Your task to perform on an android device: open app "Spotify: Music and Podcasts" (install if not already installed) and enter user name: "principled@inbox.com" and password: "arrests" Image 0: 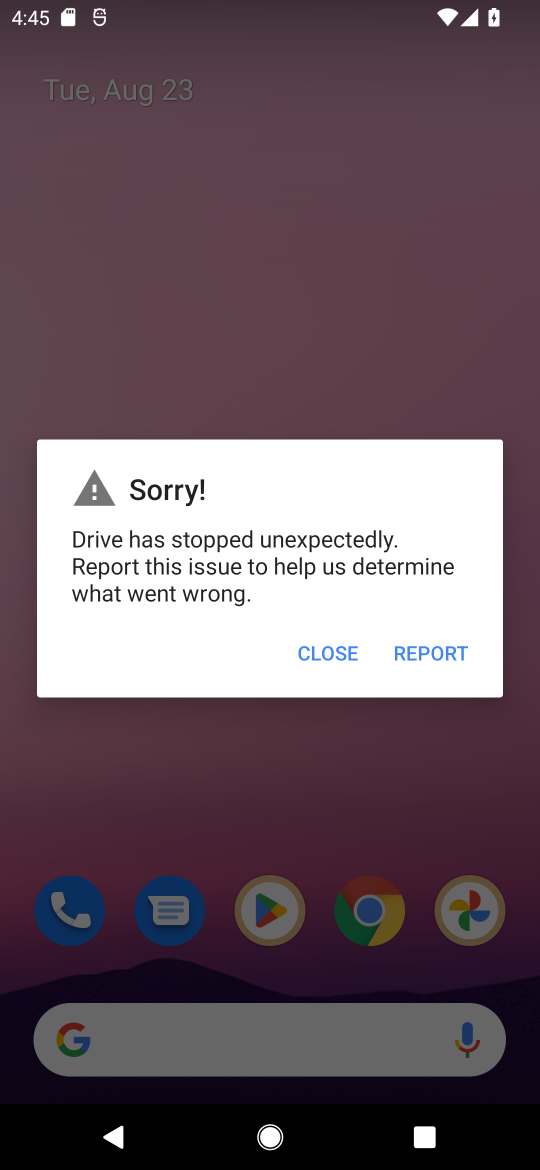
Step 0: click (332, 666)
Your task to perform on an android device: open app "Spotify: Music and Podcasts" (install if not already installed) and enter user name: "principled@inbox.com" and password: "arrests" Image 1: 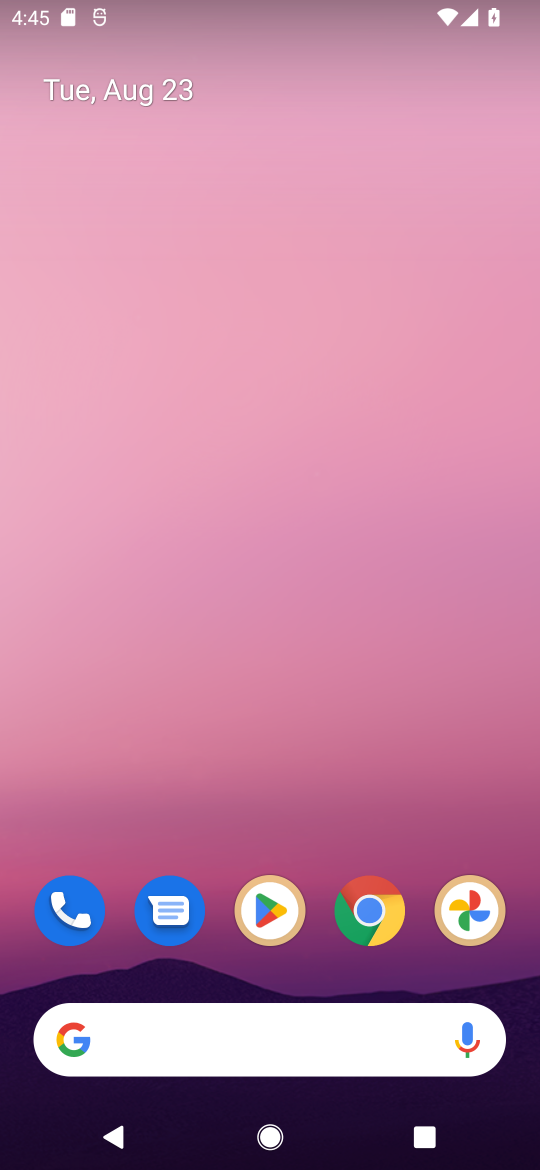
Step 1: drag from (255, 1013) to (303, 134)
Your task to perform on an android device: open app "Spotify: Music and Podcasts" (install if not already installed) and enter user name: "principled@inbox.com" and password: "arrests" Image 2: 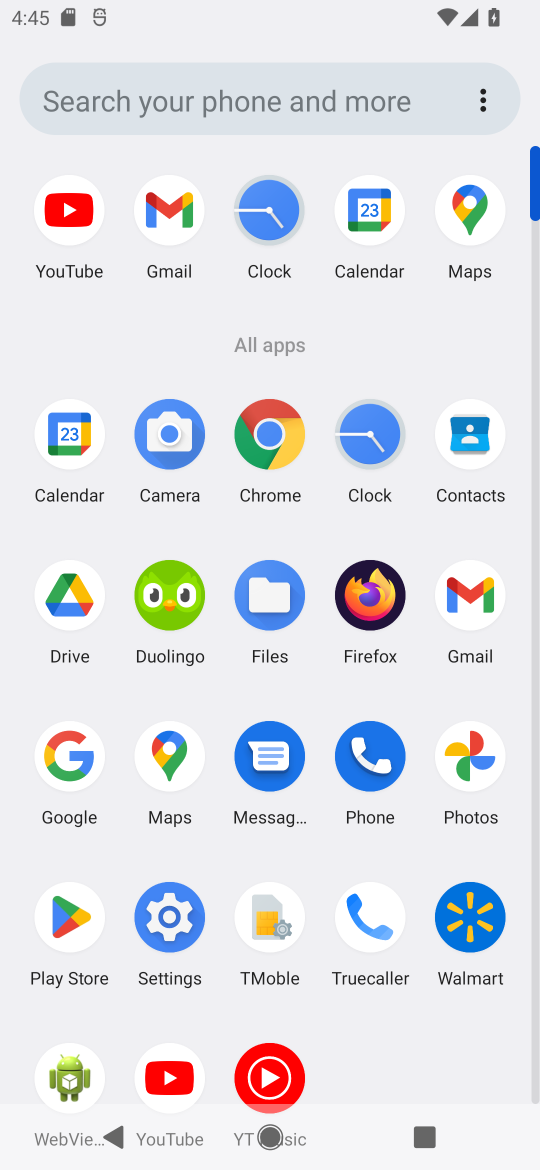
Step 2: click (60, 930)
Your task to perform on an android device: open app "Spotify: Music and Podcasts" (install if not already installed) and enter user name: "principled@inbox.com" and password: "arrests" Image 3: 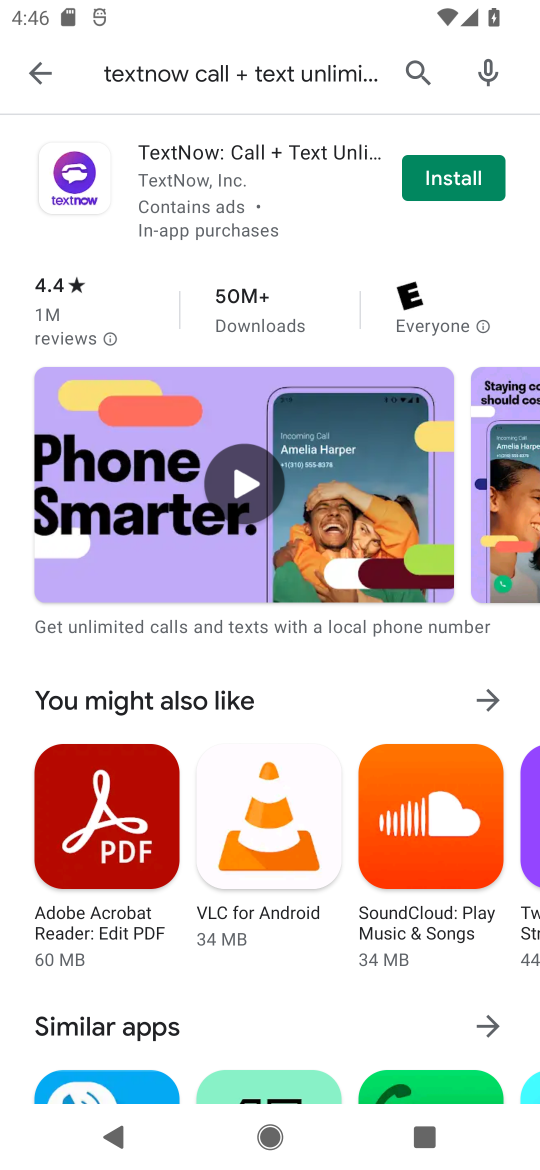
Step 3: click (427, 72)
Your task to perform on an android device: open app "Spotify: Music and Podcasts" (install if not already installed) and enter user name: "principled@inbox.com" and password: "arrests" Image 4: 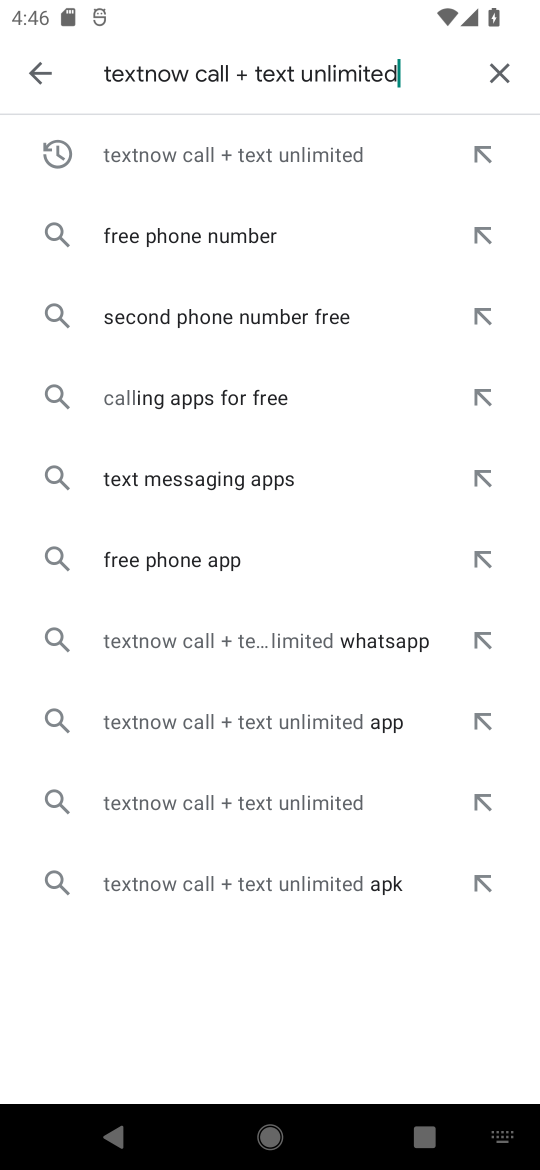
Step 4: click (508, 67)
Your task to perform on an android device: open app "Spotify: Music and Podcasts" (install if not already installed) and enter user name: "principled@inbox.com" and password: "arrests" Image 5: 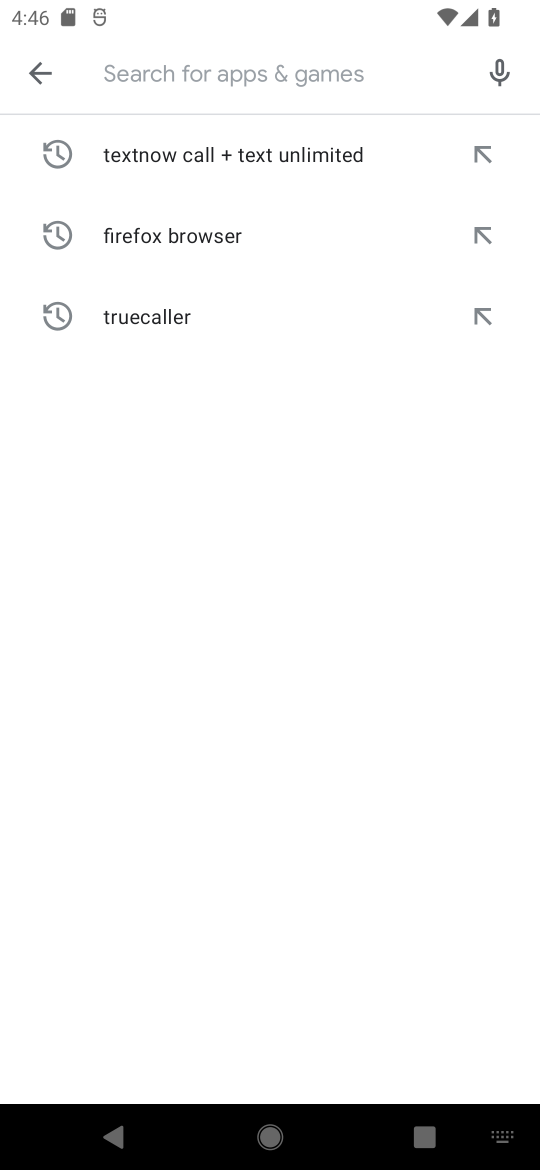
Step 5: type "Spotify: Music and Podcasts"
Your task to perform on an android device: open app "Spotify: Music and Podcasts" (install if not already installed) and enter user name: "principled@inbox.com" and password: "arrests" Image 6: 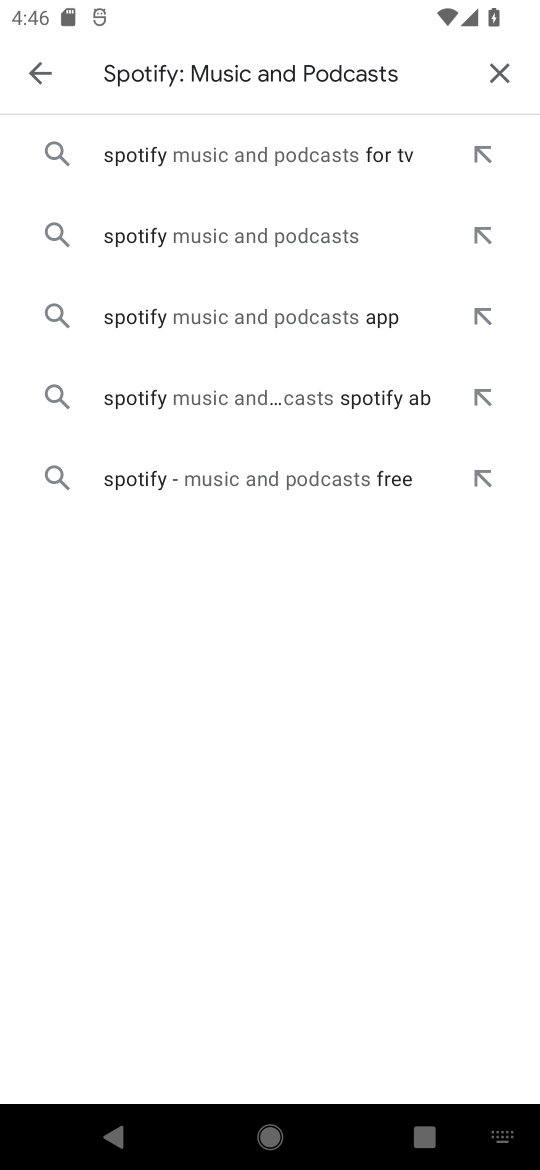
Step 6: click (188, 160)
Your task to perform on an android device: open app "Spotify: Music and Podcasts" (install if not already installed) and enter user name: "principled@inbox.com" and password: "arrests" Image 7: 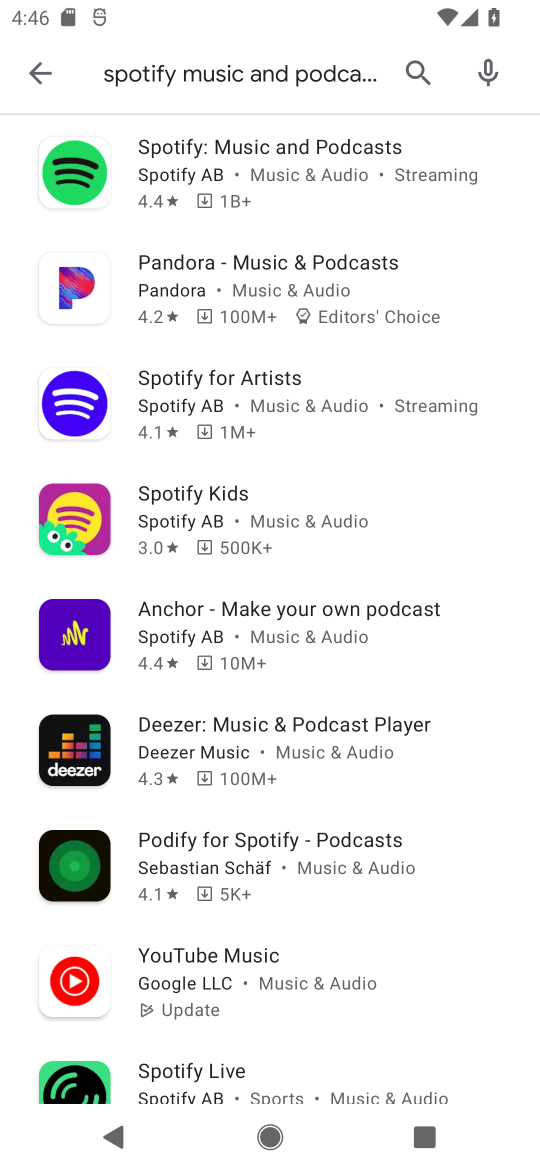
Step 7: click (188, 159)
Your task to perform on an android device: open app "Spotify: Music and Podcasts" (install if not already installed) and enter user name: "principled@inbox.com" and password: "arrests" Image 8: 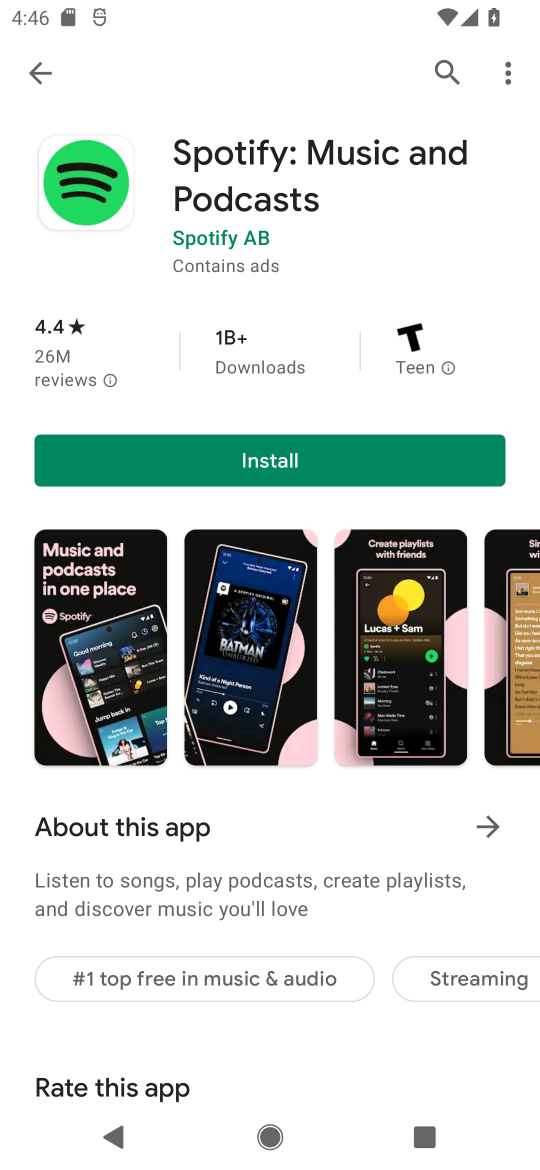
Step 8: click (270, 456)
Your task to perform on an android device: open app "Spotify: Music and Podcasts" (install if not already installed) and enter user name: "principled@inbox.com" and password: "arrests" Image 9: 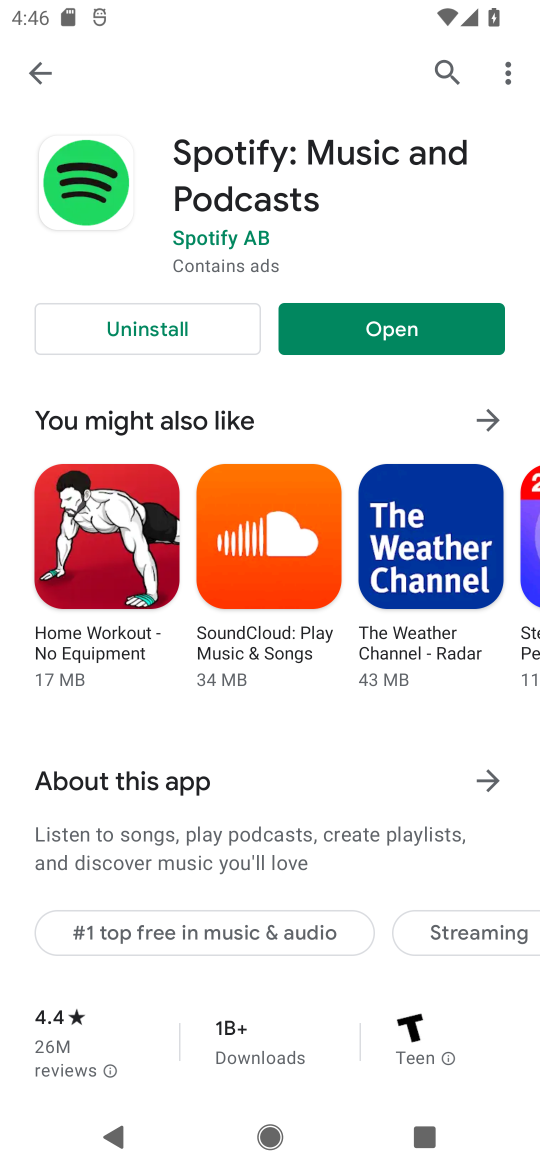
Step 9: click (410, 323)
Your task to perform on an android device: open app "Spotify: Music and Podcasts" (install if not already installed) and enter user name: "principled@inbox.com" and password: "arrests" Image 10: 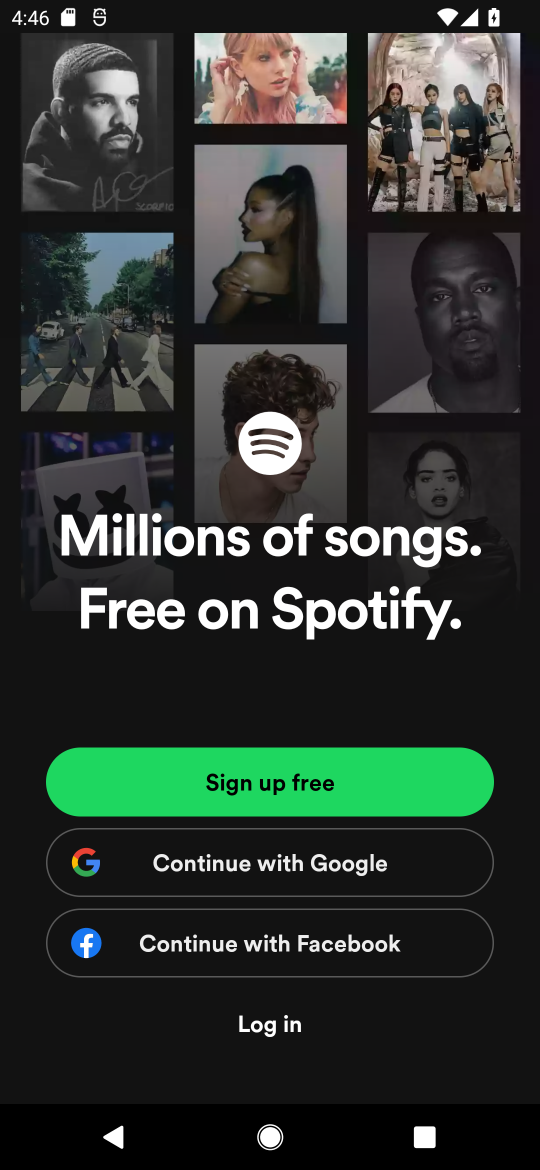
Step 10: task complete